Your task to perform on an android device: turn on airplane mode Image 0: 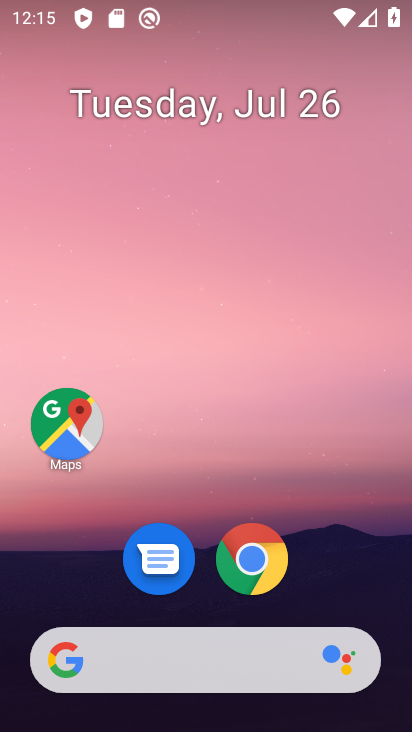
Step 0: drag from (377, 9) to (277, 565)
Your task to perform on an android device: turn on airplane mode Image 1: 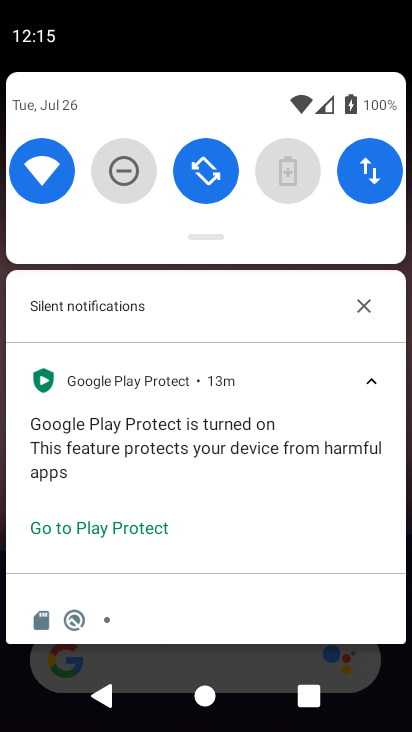
Step 1: drag from (207, 216) to (273, 730)
Your task to perform on an android device: turn on airplane mode Image 2: 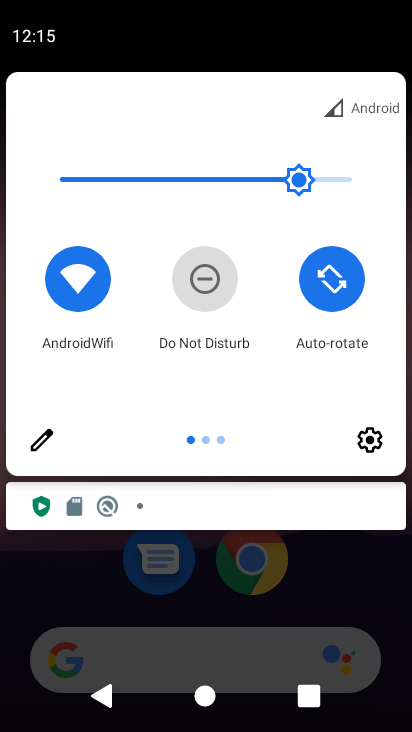
Step 2: drag from (357, 292) to (44, 293)
Your task to perform on an android device: turn on airplane mode Image 3: 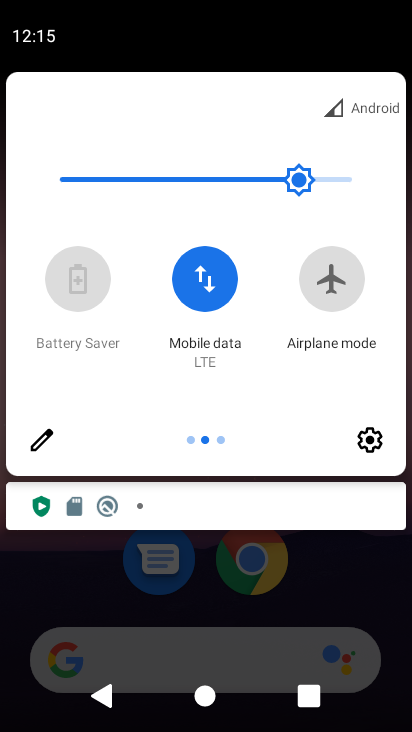
Step 3: click (326, 278)
Your task to perform on an android device: turn on airplane mode Image 4: 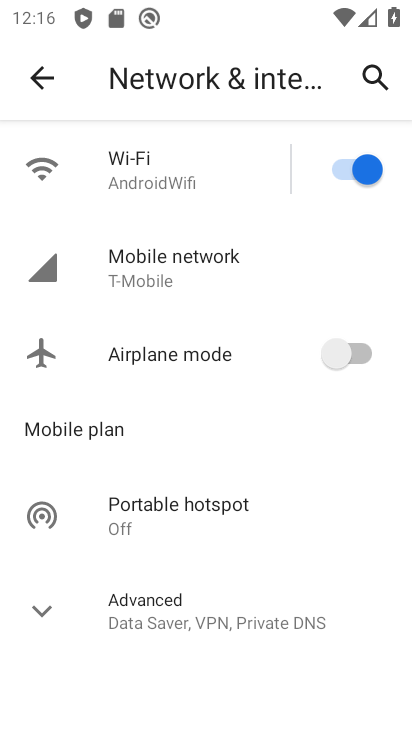
Step 4: click (344, 349)
Your task to perform on an android device: turn on airplane mode Image 5: 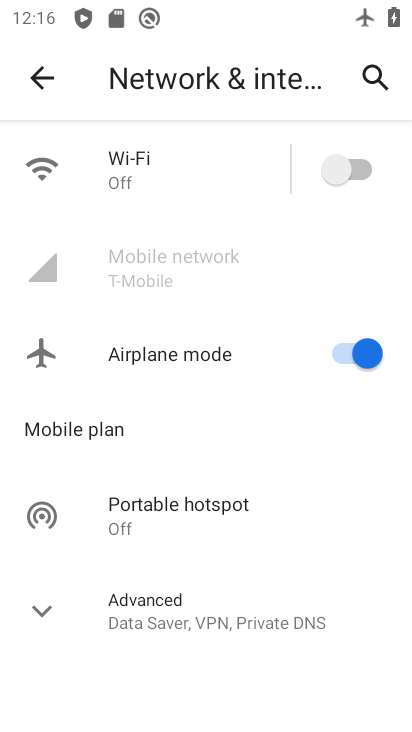
Step 5: task complete